Your task to perform on an android device: Open Yahoo.com Image 0: 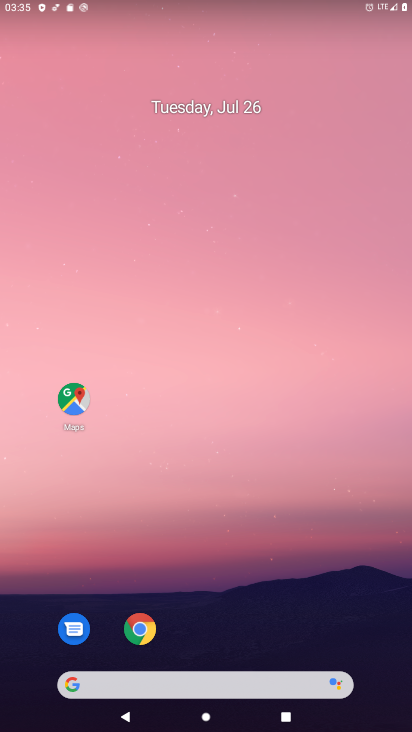
Step 0: drag from (267, 574) to (293, 39)
Your task to perform on an android device: Open Yahoo.com Image 1: 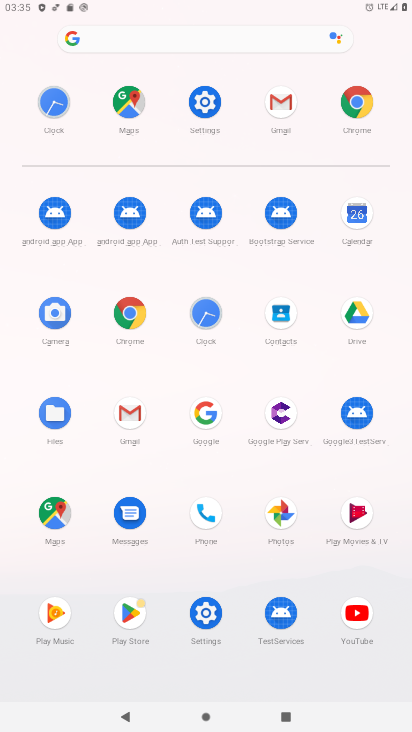
Step 1: click (124, 306)
Your task to perform on an android device: Open Yahoo.com Image 2: 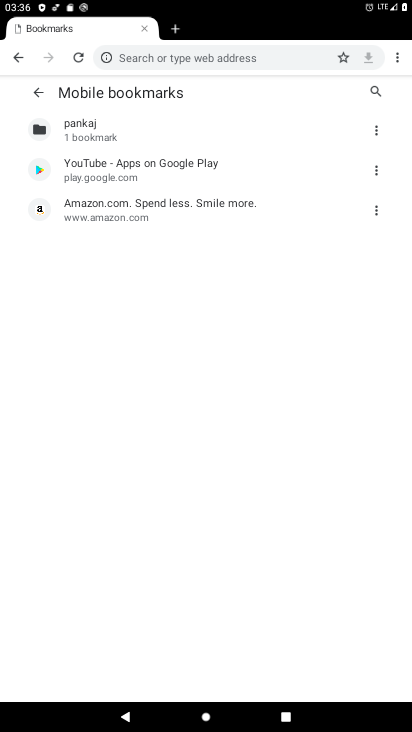
Step 2: click (181, 54)
Your task to perform on an android device: Open Yahoo.com Image 3: 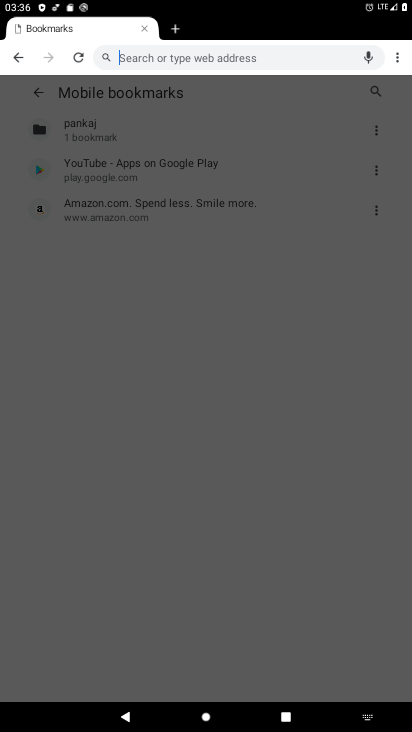
Step 3: type " Yahoo.com"
Your task to perform on an android device: Open Yahoo.com Image 4: 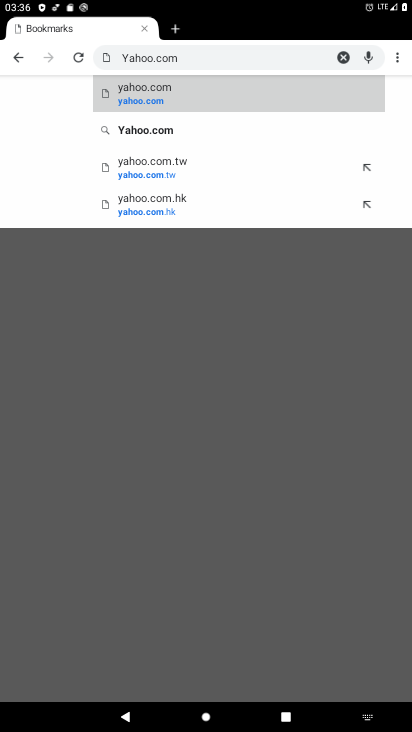
Step 4: click (145, 100)
Your task to perform on an android device: Open Yahoo.com Image 5: 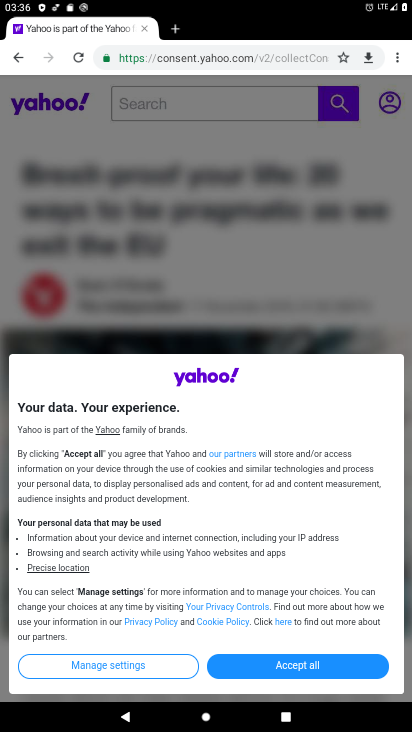
Step 5: click (297, 658)
Your task to perform on an android device: Open Yahoo.com Image 6: 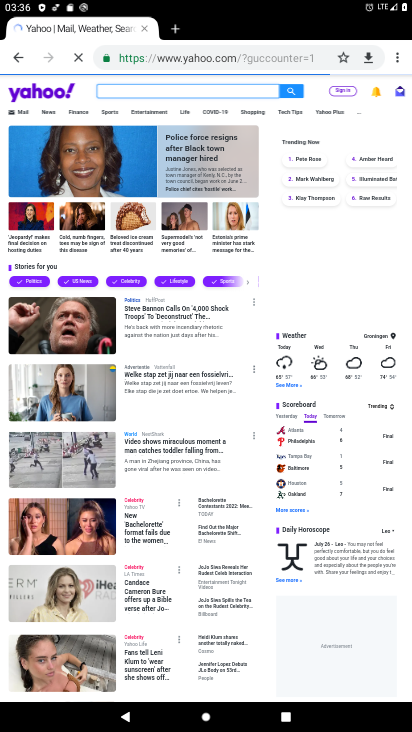
Step 6: task complete